Your task to perform on an android device: Search for flights from Mexico city to Boston Image 0: 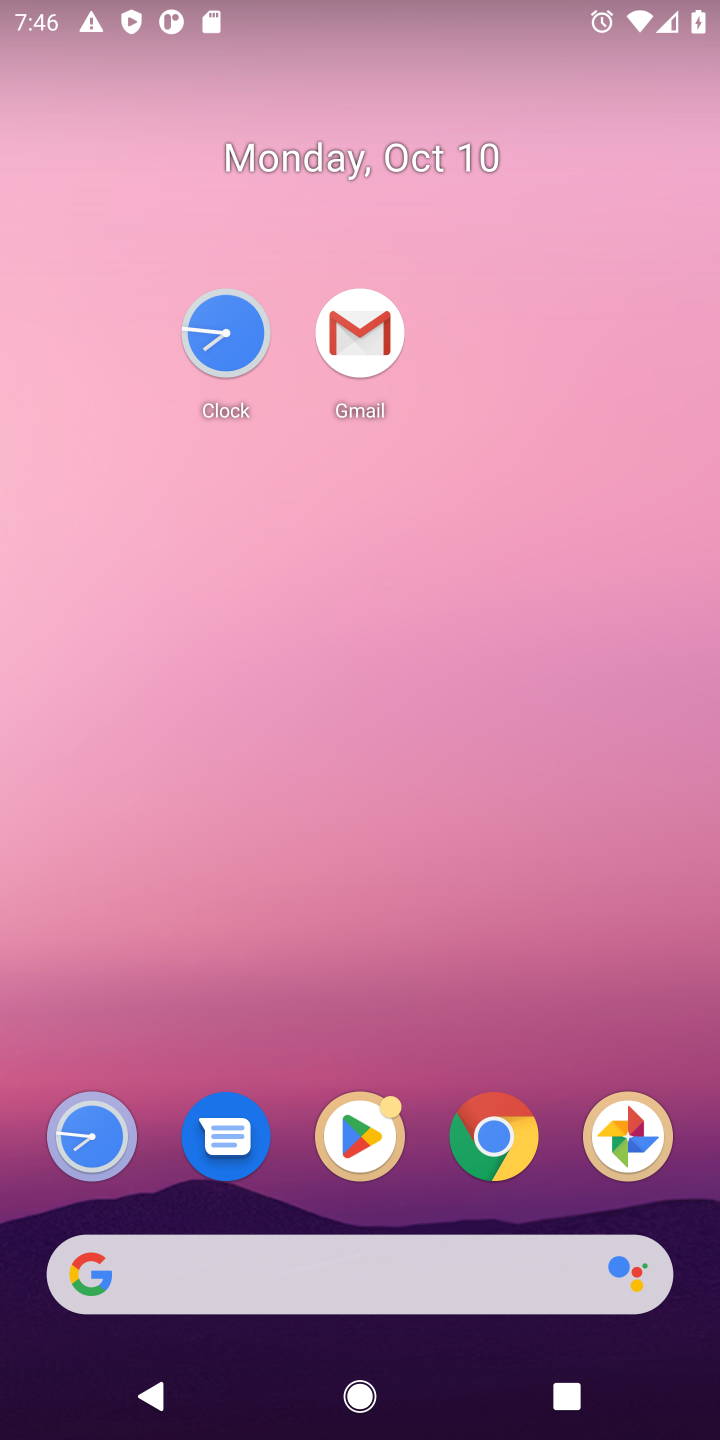
Step 0: drag from (437, 1190) to (309, 46)
Your task to perform on an android device: Search for flights from Mexico city to Boston Image 1: 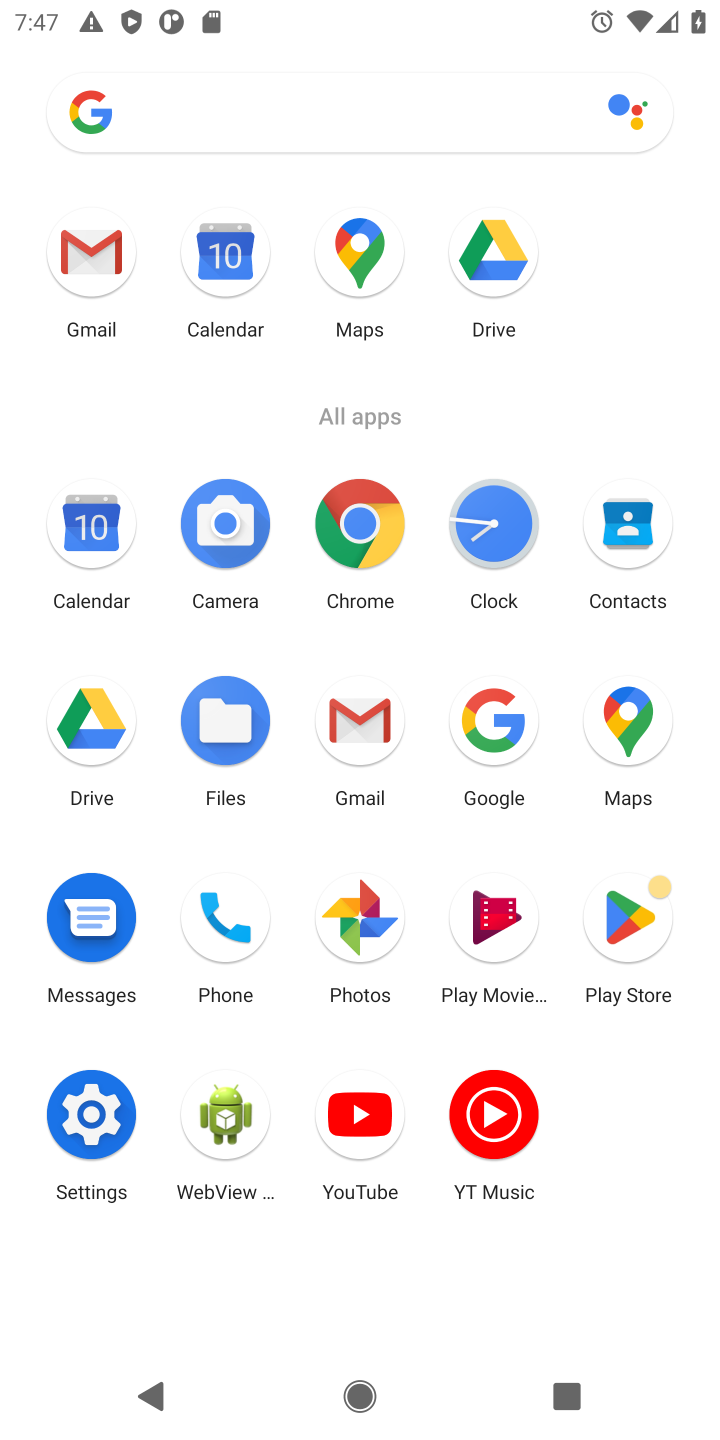
Step 1: click (496, 722)
Your task to perform on an android device: Search for flights from Mexico city to Boston Image 2: 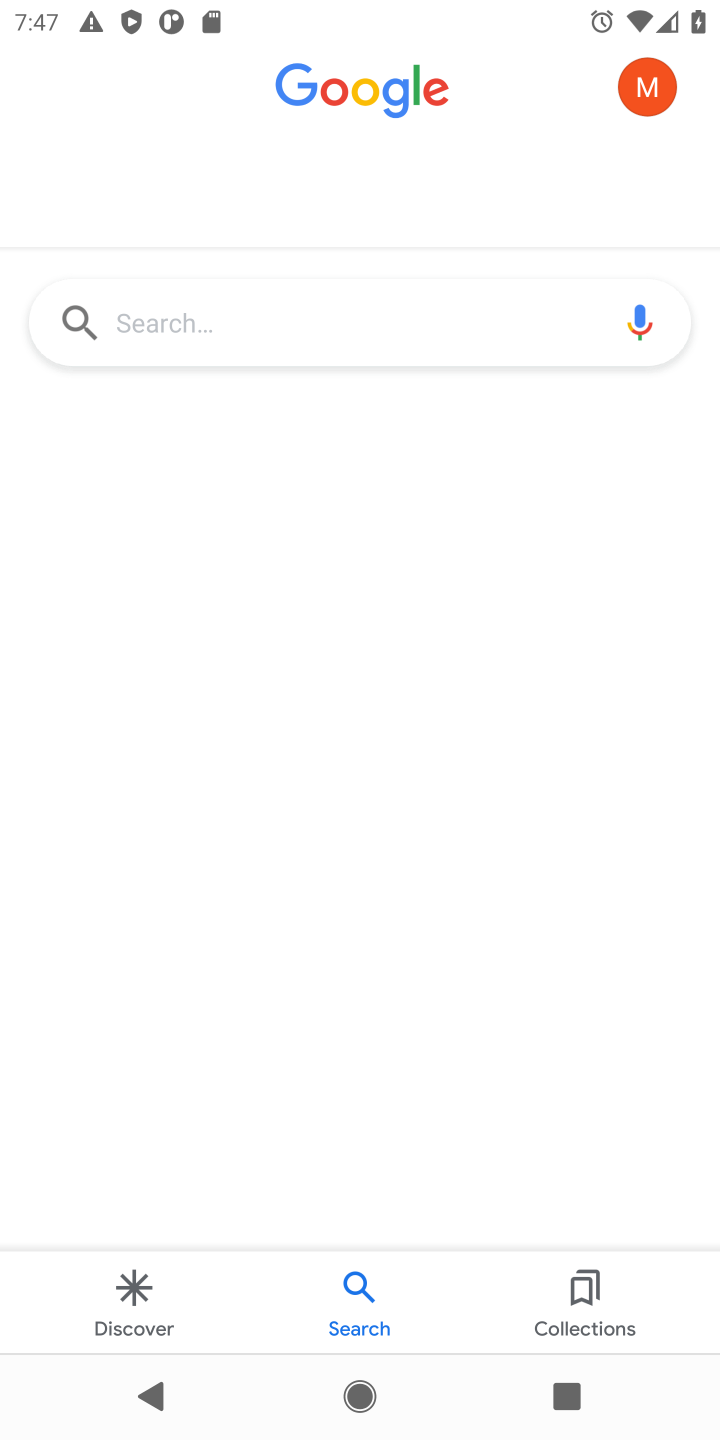
Step 2: click (378, 317)
Your task to perform on an android device: Search for flights from Mexico city to Boston Image 3: 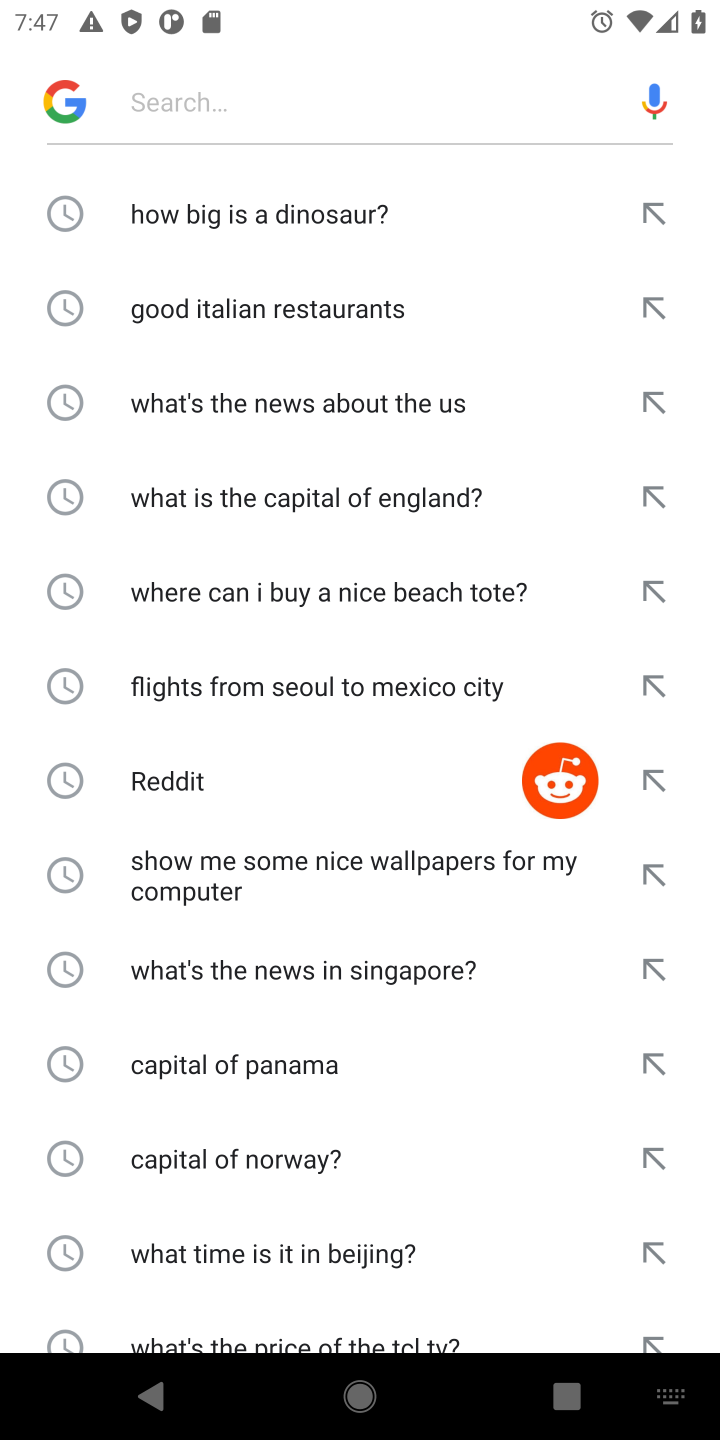
Step 3: type "flights from Mexico city to Boston"
Your task to perform on an android device: Search for flights from Mexico city to Boston Image 4: 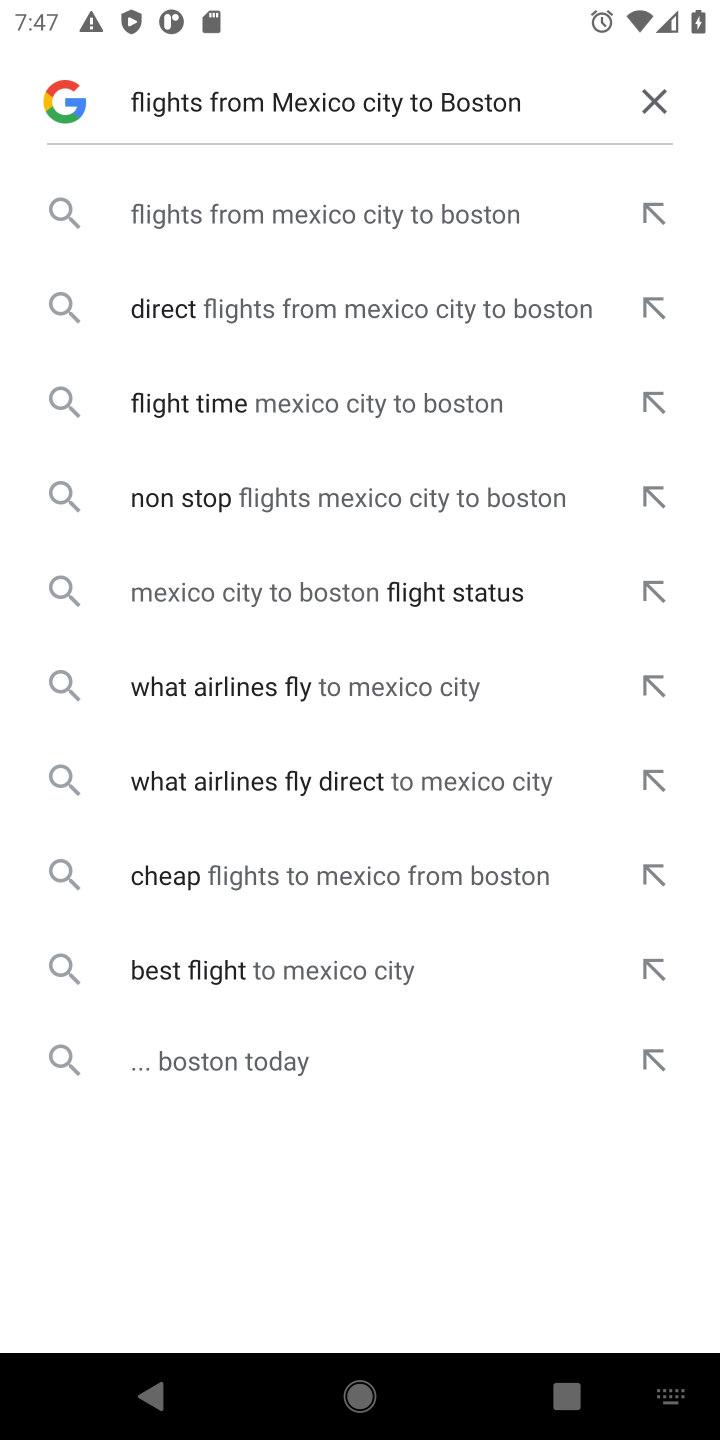
Step 4: type ""
Your task to perform on an android device: Search for flights from Mexico city to Boston Image 5: 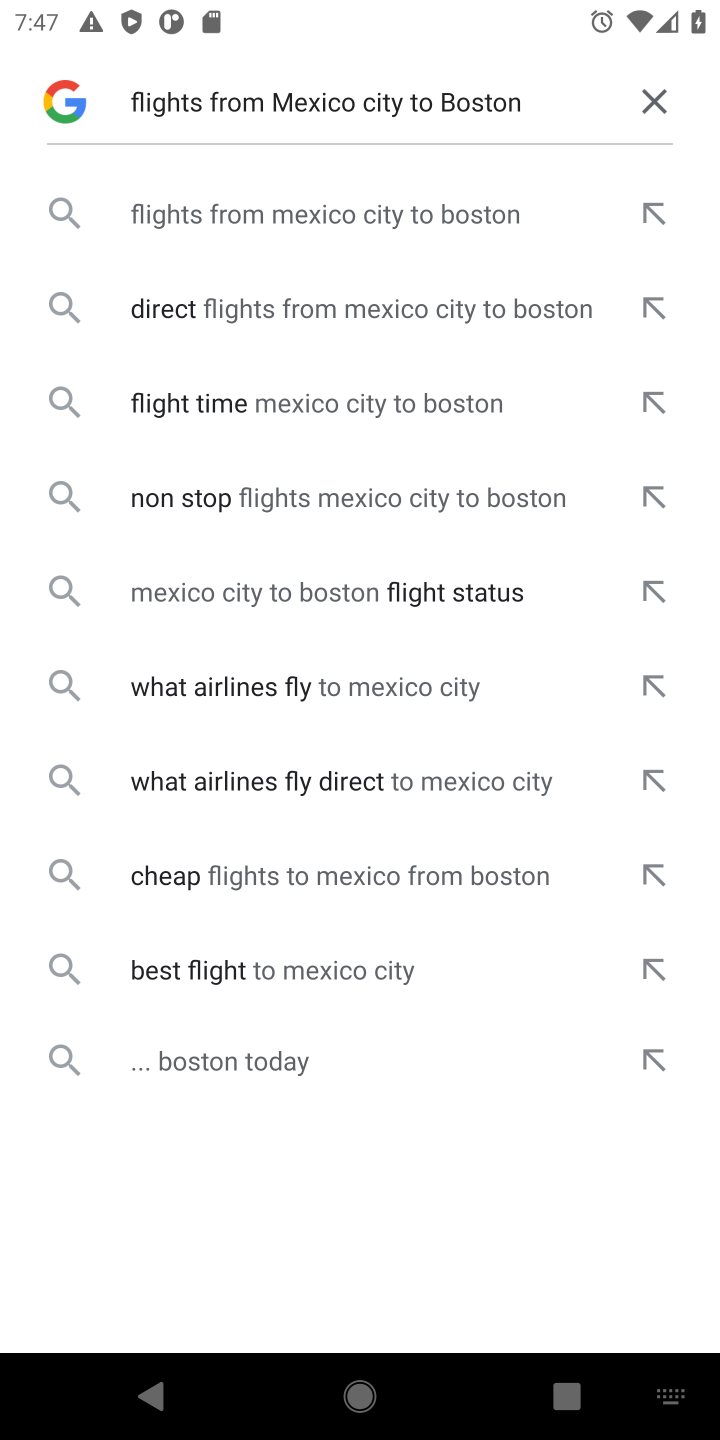
Step 5: click (306, 221)
Your task to perform on an android device: Search for flights from Mexico city to Boston Image 6: 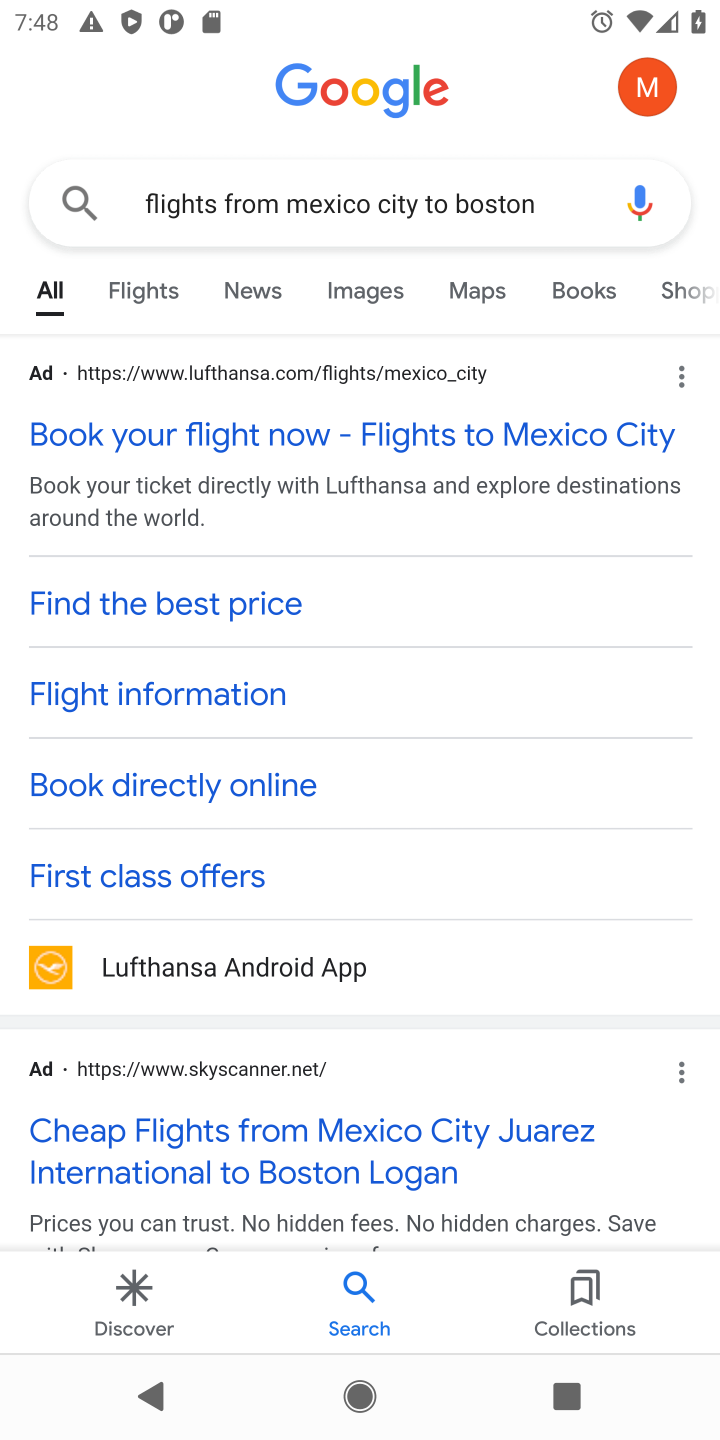
Step 6: task complete